Your task to perform on an android device: Go to Android settings Image 0: 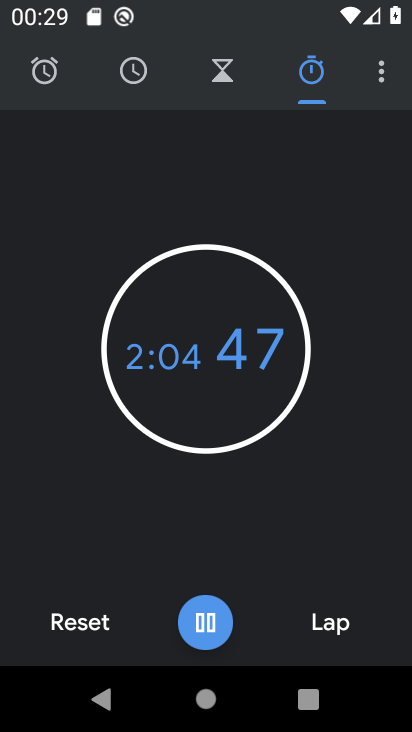
Step 0: press home button
Your task to perform on an android device: Go to Android settings Image 1: 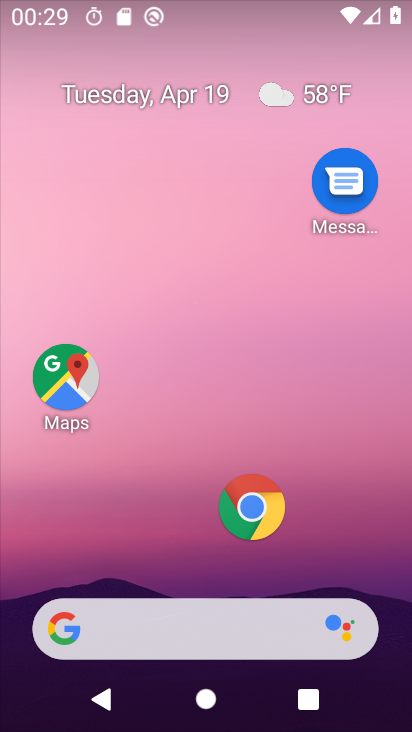
Step 1: drag from (183, 482) to (282, 62)
Your task to perform on an android device: Go to Android settings Image 2: 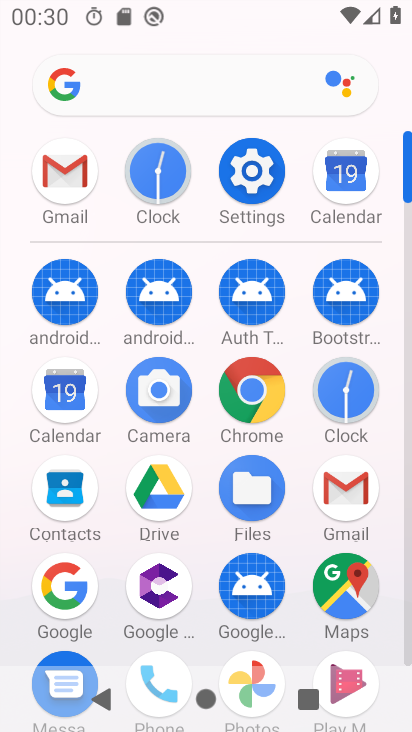
Step 2: click (255, 180)
Your task to perform on an android device: Go to Android settings Image 3: 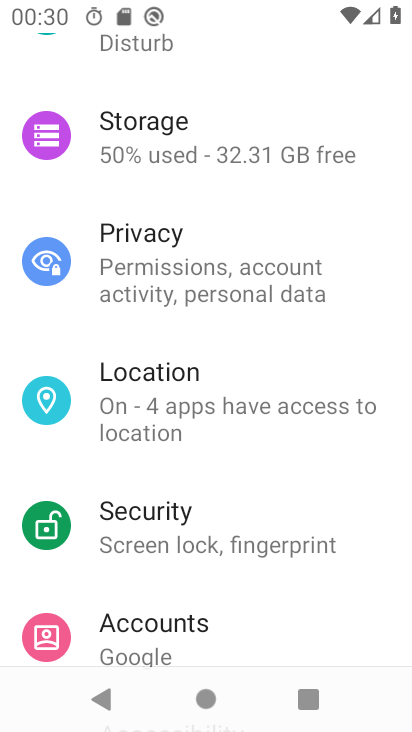
Step 3: drag from (202, 572) to (272, 83)
Your task to perform on an android device: Go to Android settings Image 4: 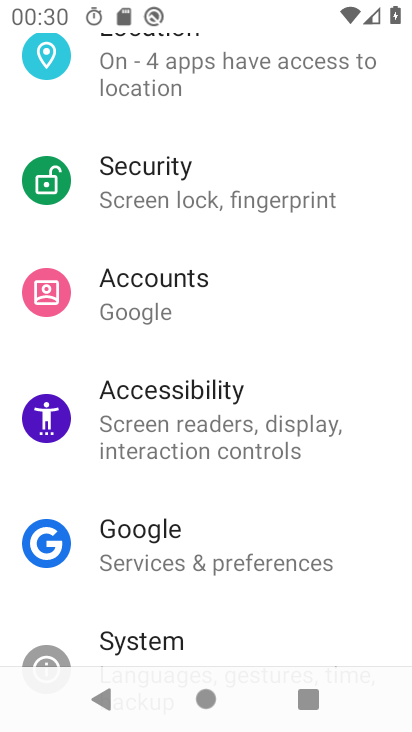
Step 4: drag from (192, 562) to (268, 139)
Your task to perform on an android device: Go to Android settings Image 5: 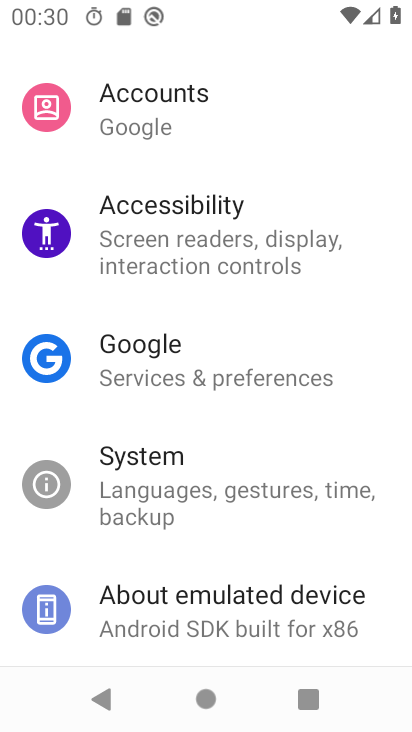
Step 5: click (174, 605)
Your task to perform on an android device: Go to Android settings Image 6: 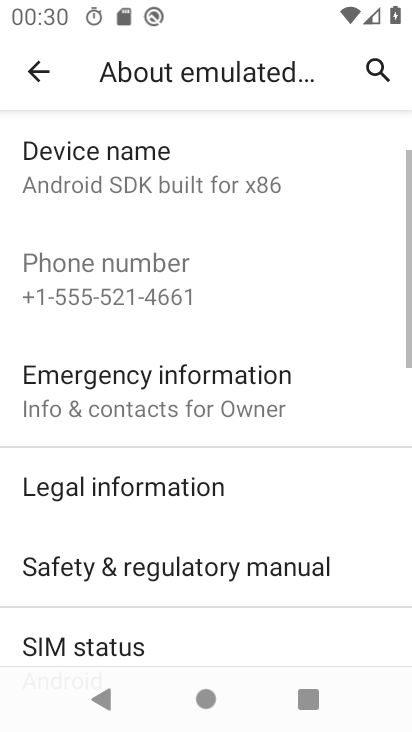
Step 6: drag from (199, 561) to (282, 269)
Your task to perform on an android device: Go to Android settings Image 7: 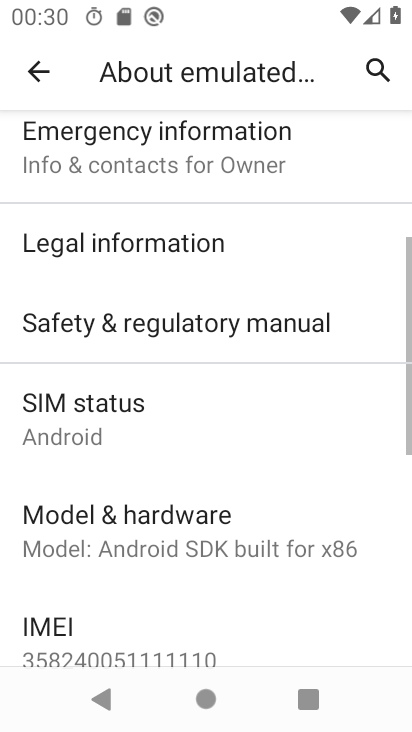
Step 7: drag from (180, 570) to (262, 167)
Your task to perform on an android device: Go to Android settings Image 8: 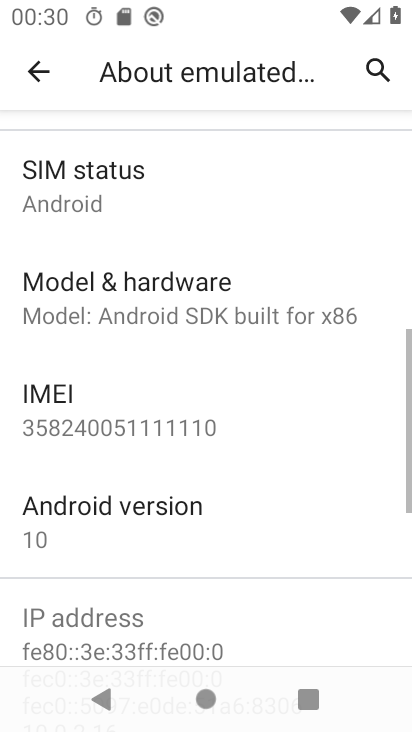
Step 8: click (158, 520)
Your task to perform on an android device: Go to Android settings Image 9: 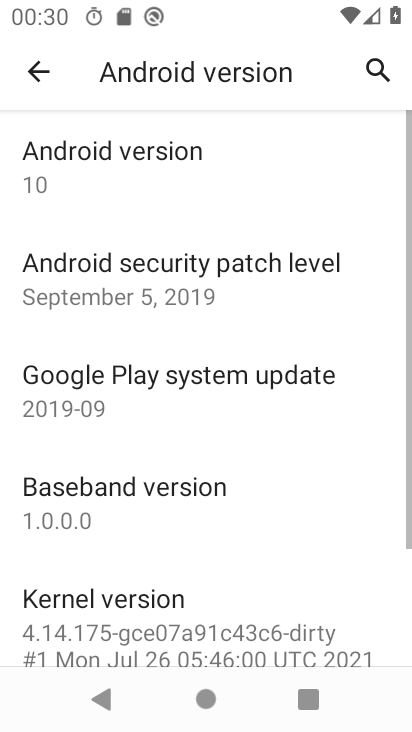
Step 9: task complete